Your task to perform on an android device: toggle notification dots Image 0: 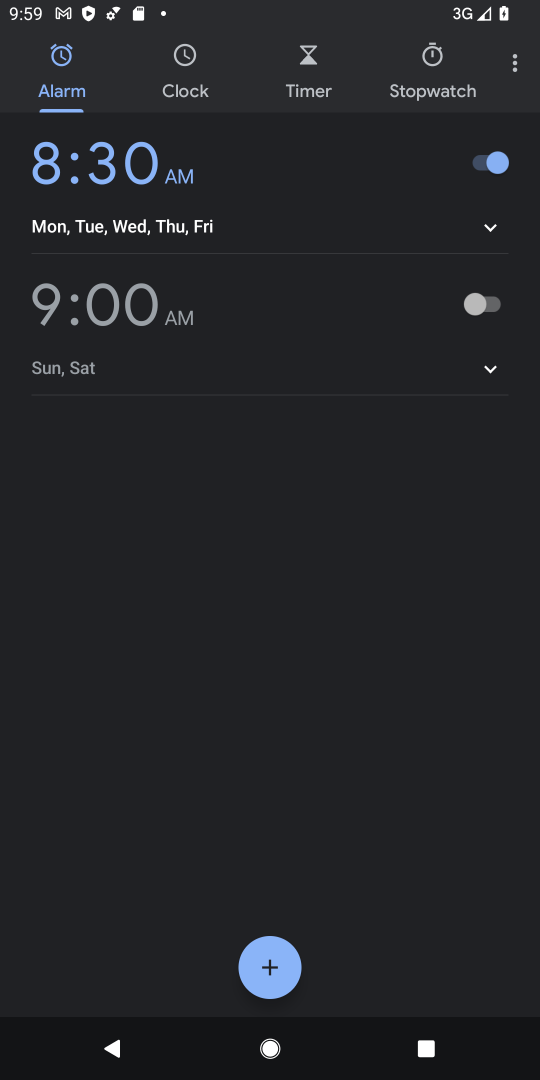
Step 0: press home button
Your task to perform on an android device: toggle notification dots Image 1: 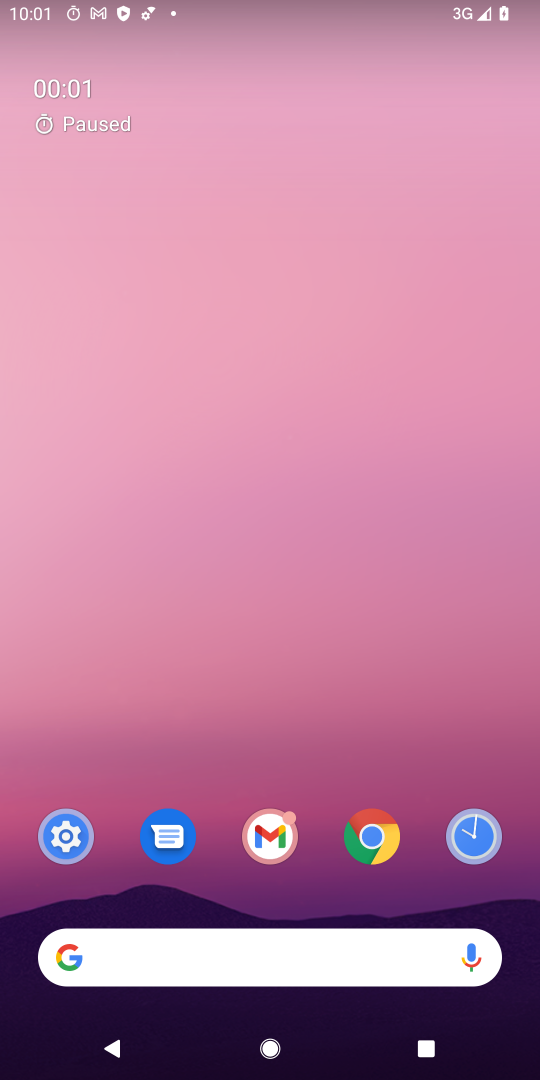
Step 1: drag from (411, 888) to (334, 49)
Your task to perform on an android device: toggle notification dots Image 2: 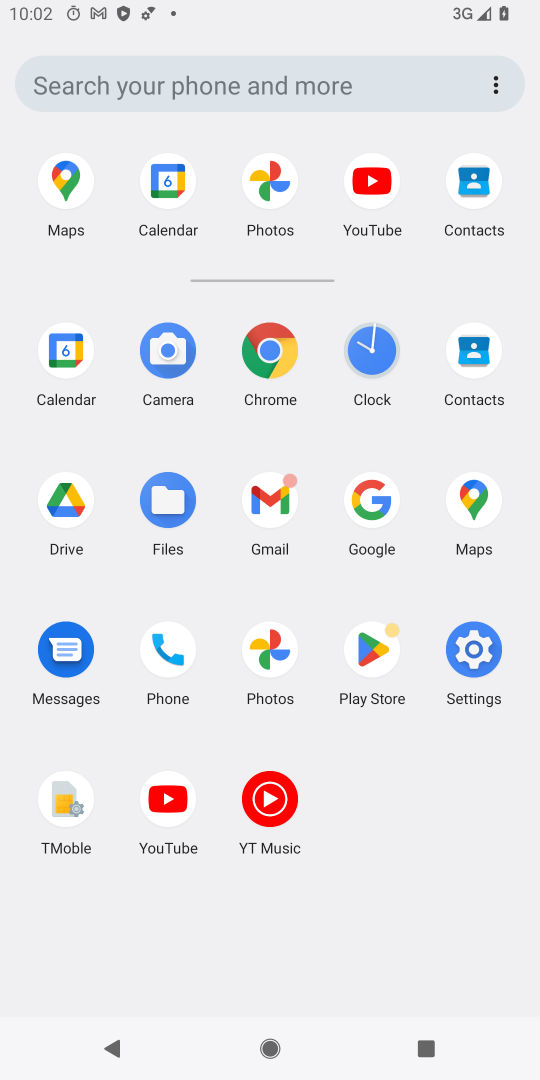
Step 2: click (470, 665)
Your task to perform on an android device: toggle notification dots Image 3: 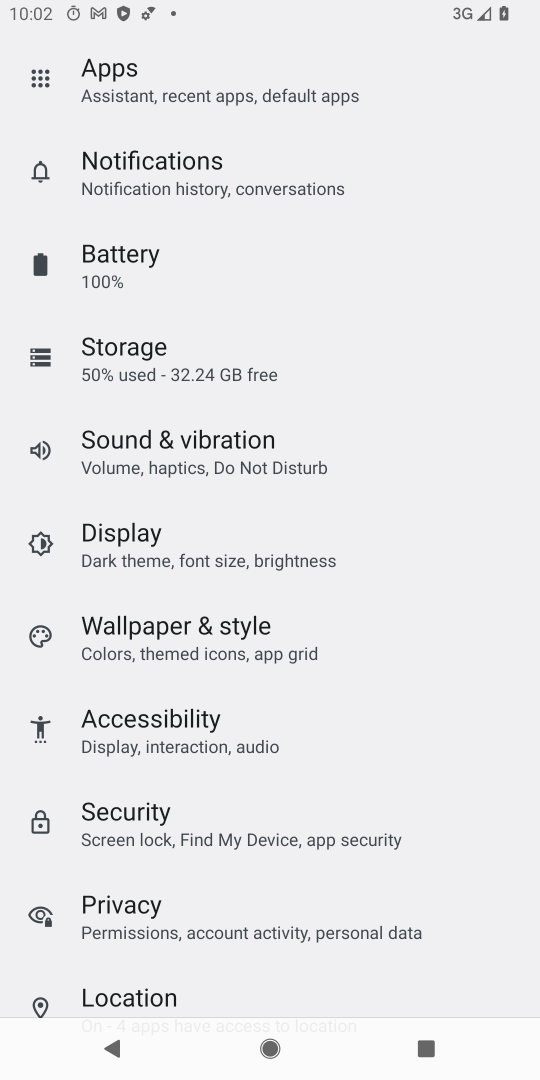
Step 3: click (152, 171)
Your task to perform on an android device: toggle notification dots Image 4: 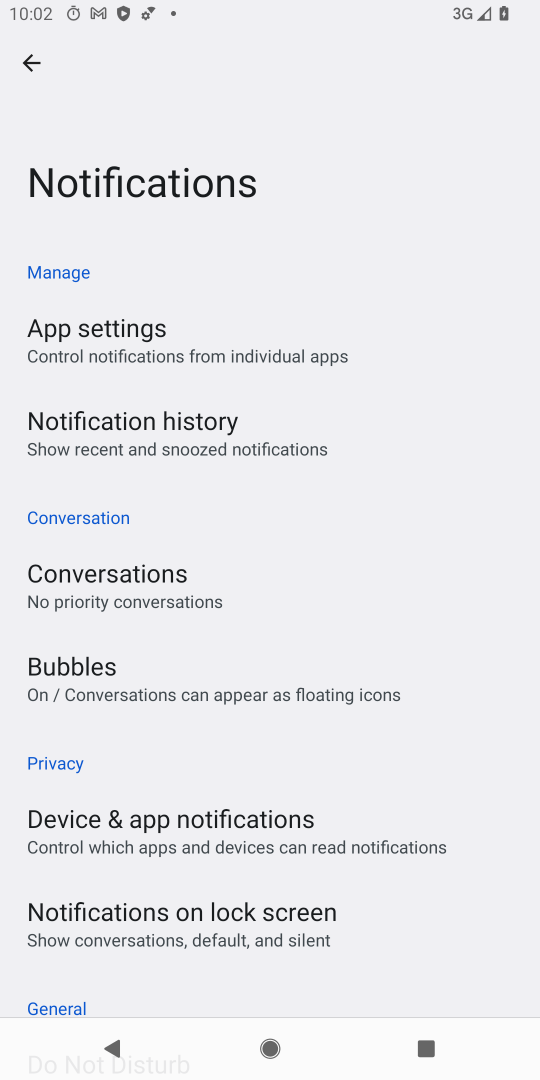
Step 4: drag from (210, 937) to (234, 0)
Your task to perform on an android device: toggle notification dots Image 5: 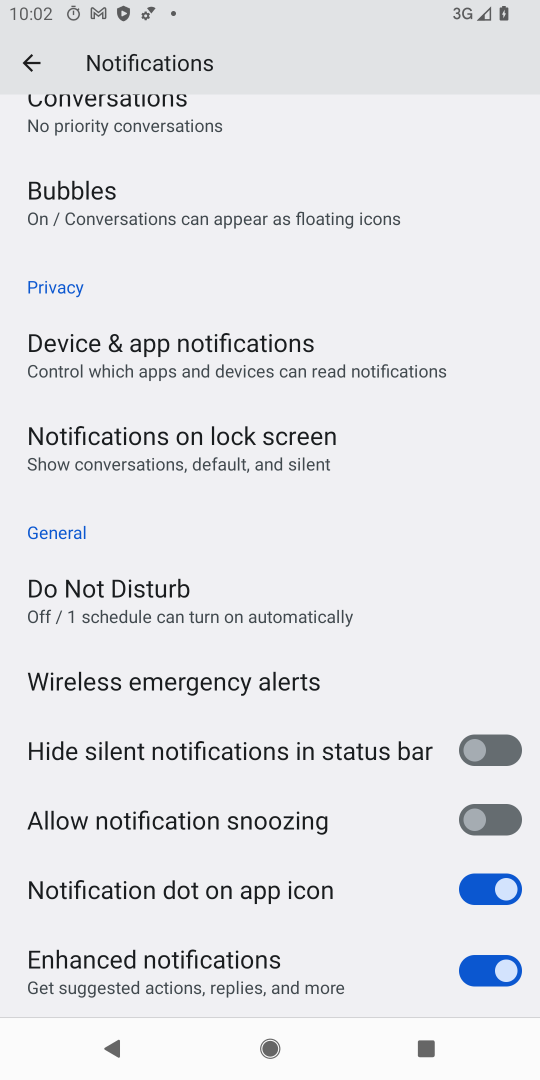
Step 5: click (455, 889)
Your task to perform on an android device: toggle notification dots Image 6: 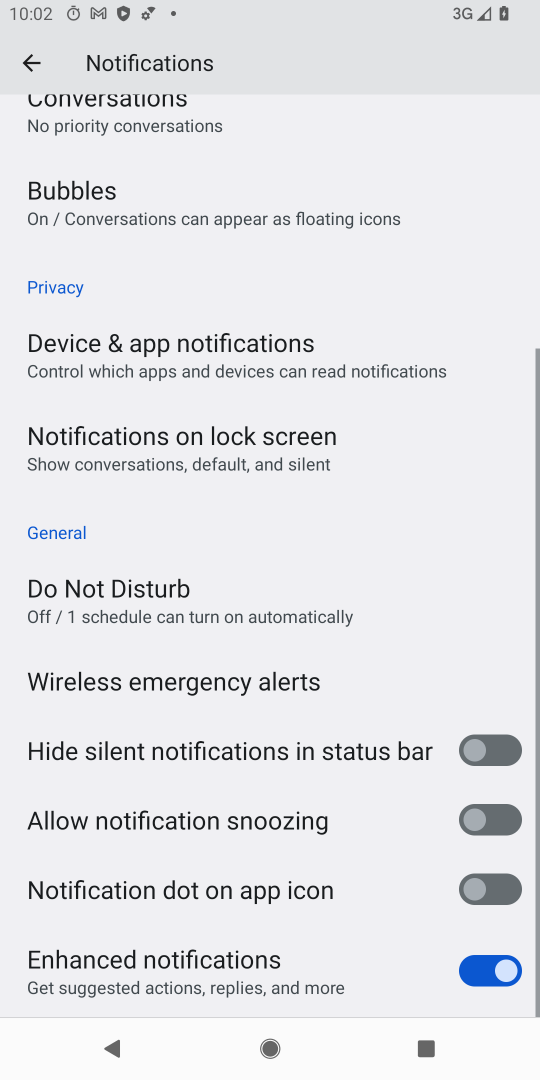
Step 6: task complete